Your task to perform on an android device: Set the phone to "Do not disturb". Image 0: 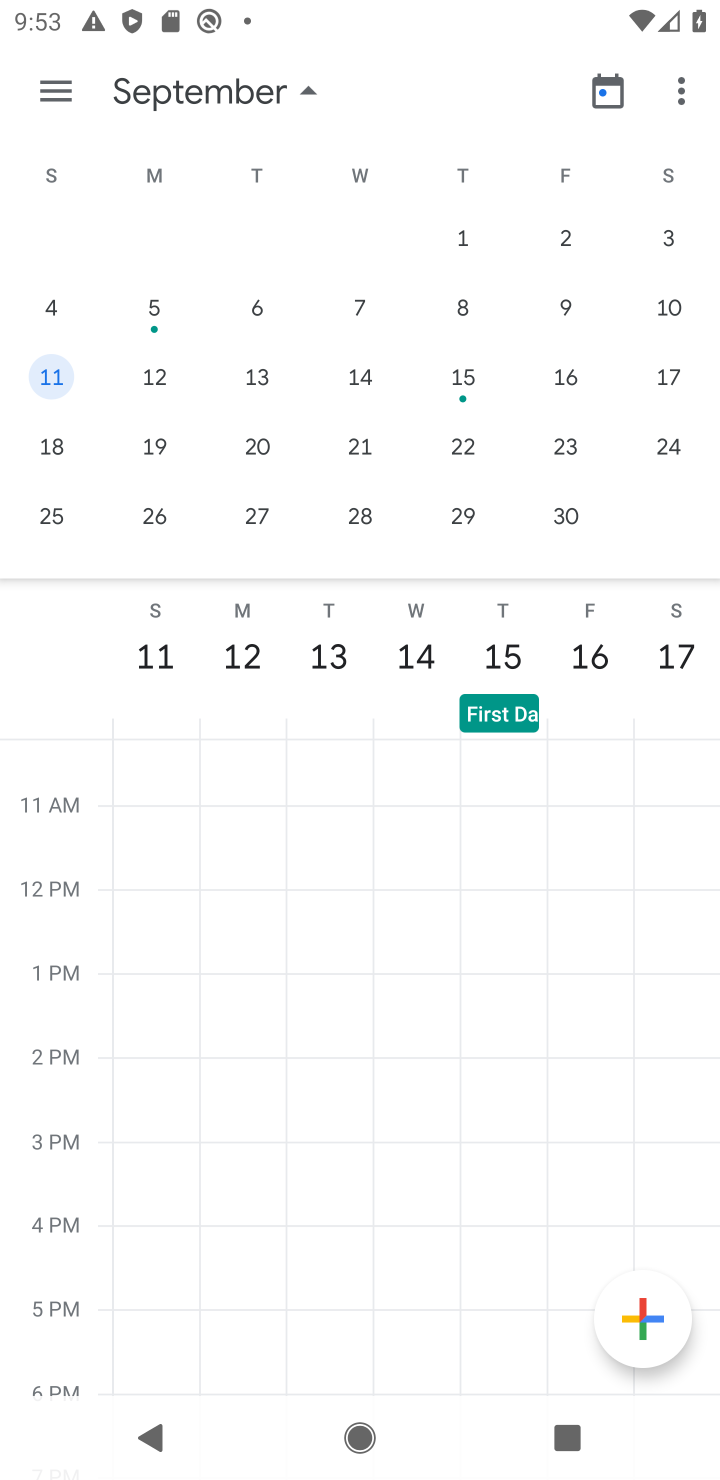
Step 0: press home button
Your task to perform on an android device: Set the phone to "Do not disturb". Image 1: 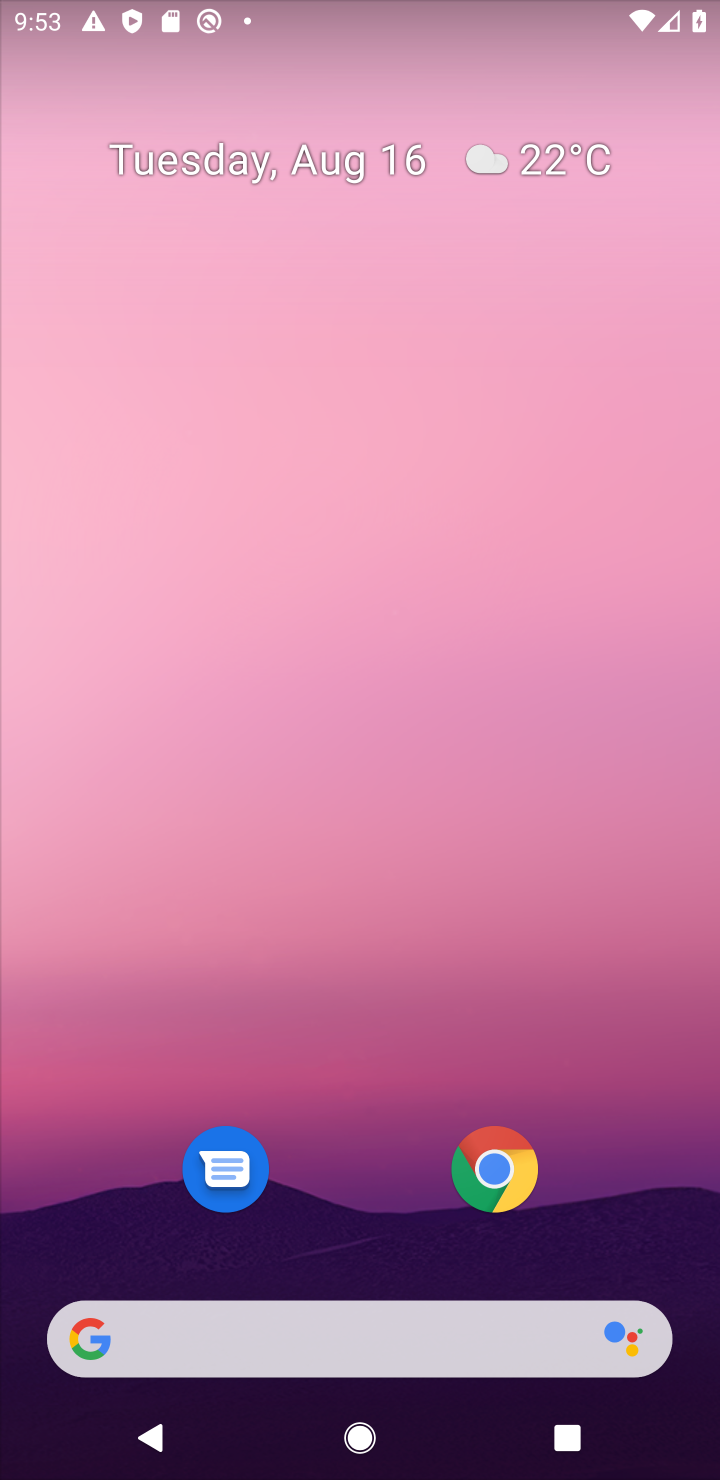
Step 1: drag from (317, 944) to (93, 30)
Your task to perform on an android device: Set the phone to "Do not disturb". Image 2: 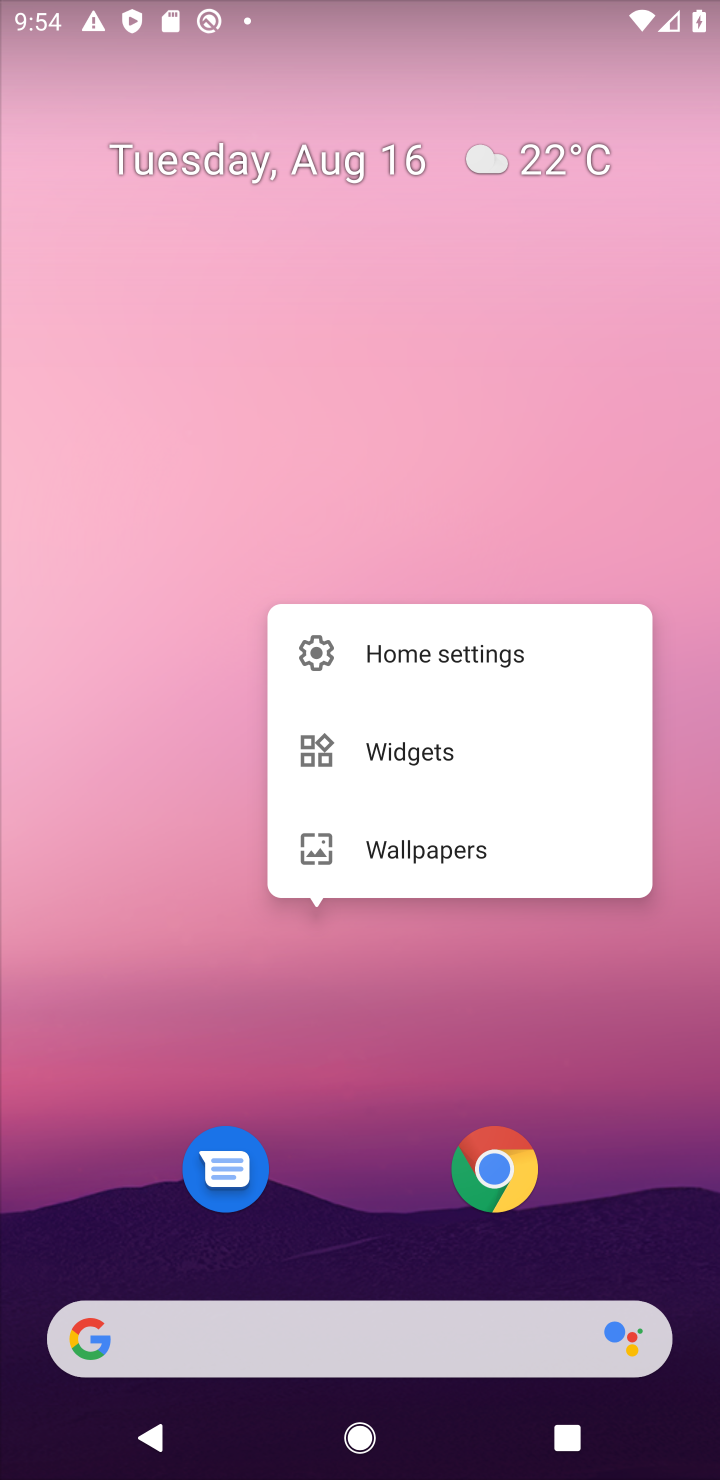
Step 2: drag from (327, 1149) to (297, 15)
Your task to perform on an android device: Set the phone to "Do not disturb". Image 3: 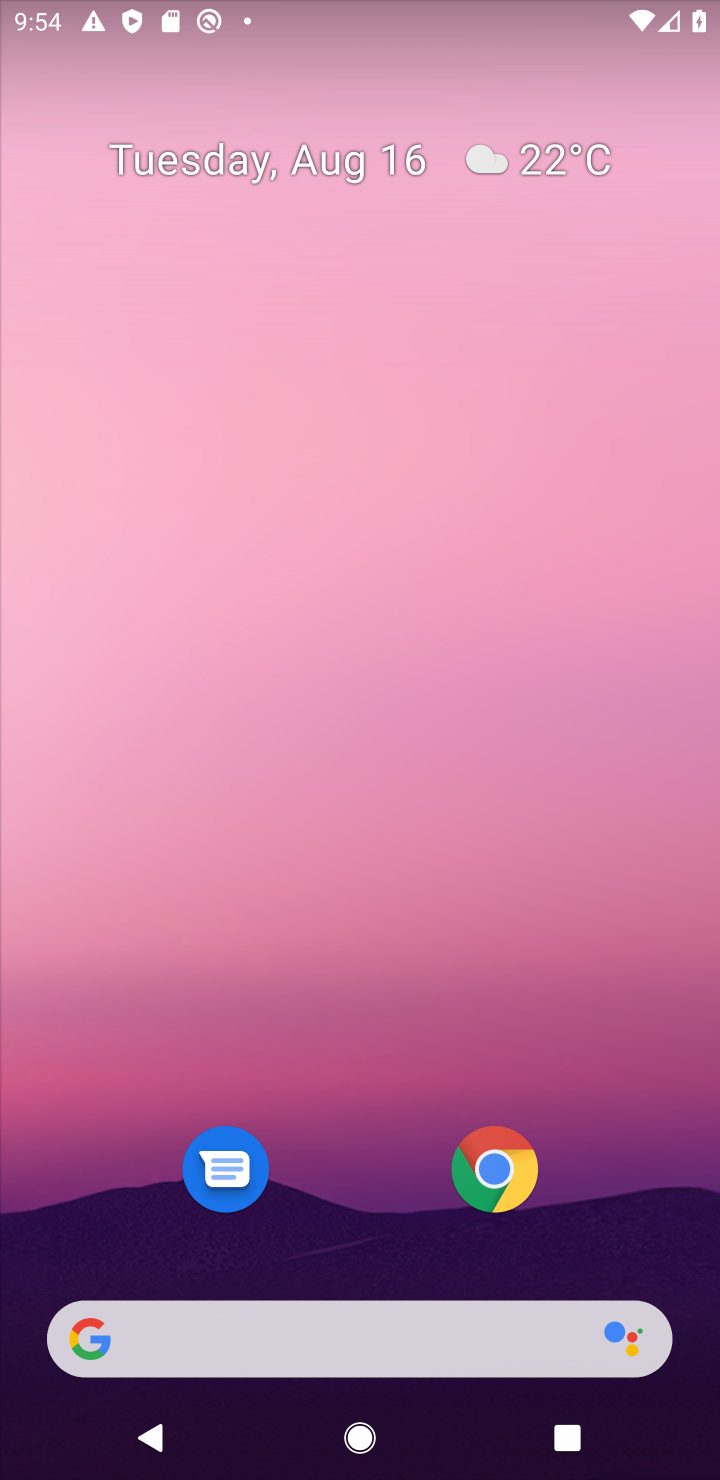
Step 3: drag from (313, 237) to (214, 59)
Your task to perform on an android device: Set the phone to "Do not disturb". Image 4: 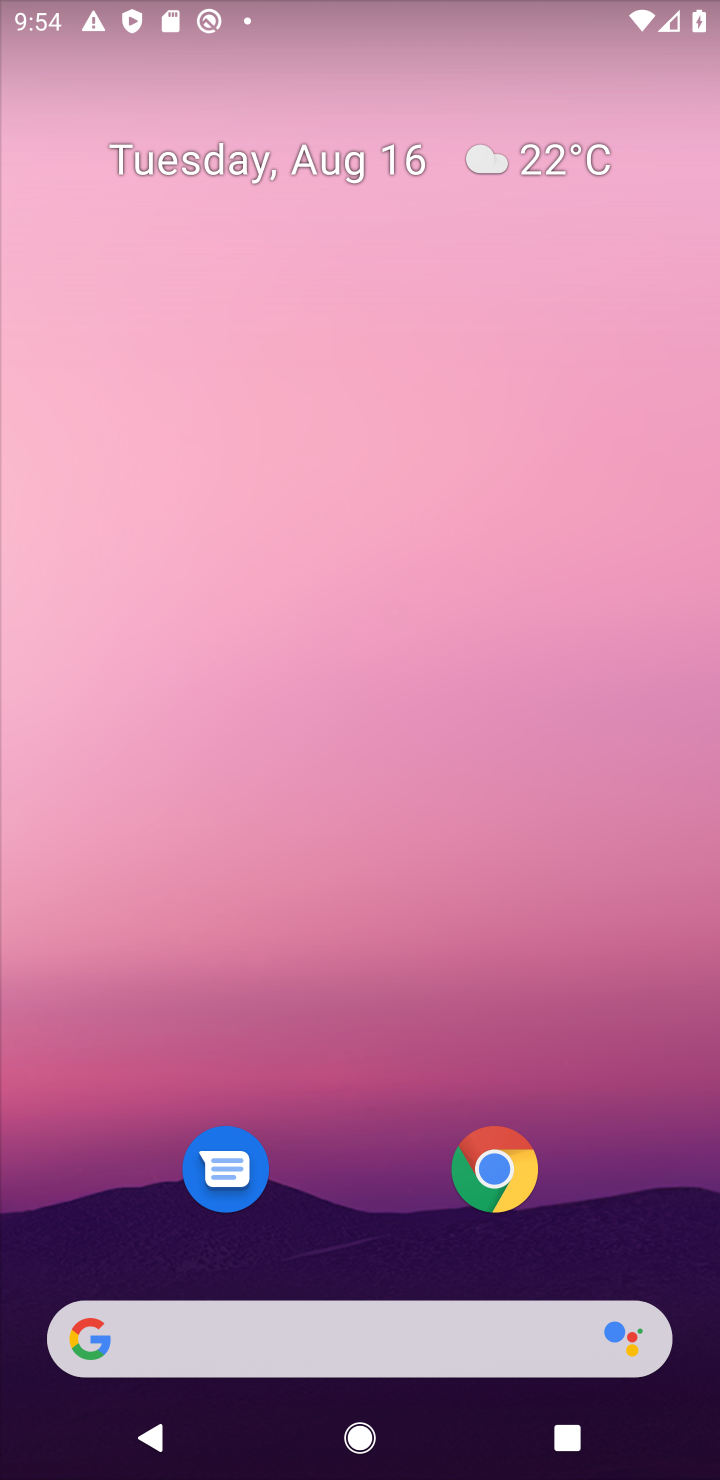
Step 4: drag from (350, 944) to (355, 129)
Your task to perform on an android device: Set the phone to "Do not disturb". Image 5: 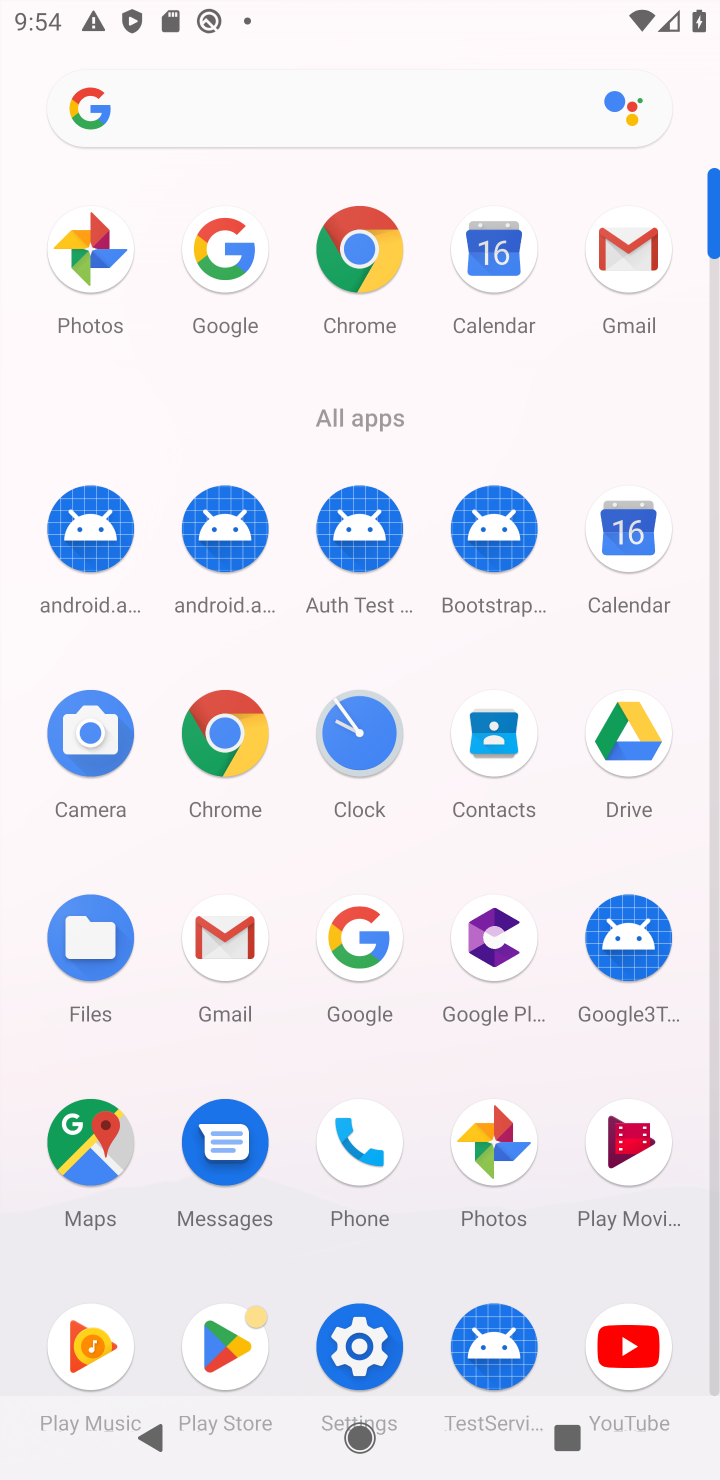
Step 5: click (353, 1353)
Your task to perform on an android device: Set the phone to "Do not disturb". Image 6: 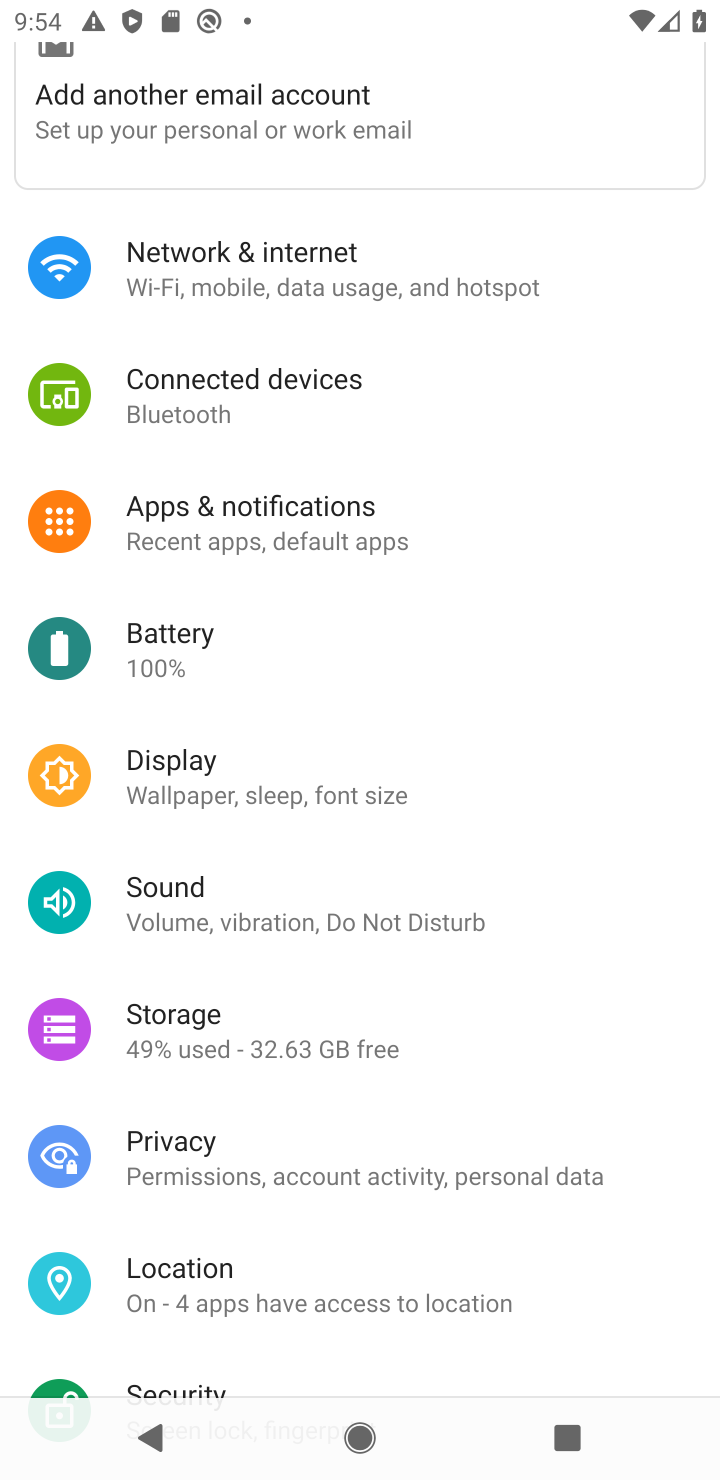
Step 6: click (172, 878)
Your task to perform on an android device: Set the phone to "Do not disturb". Image 7: 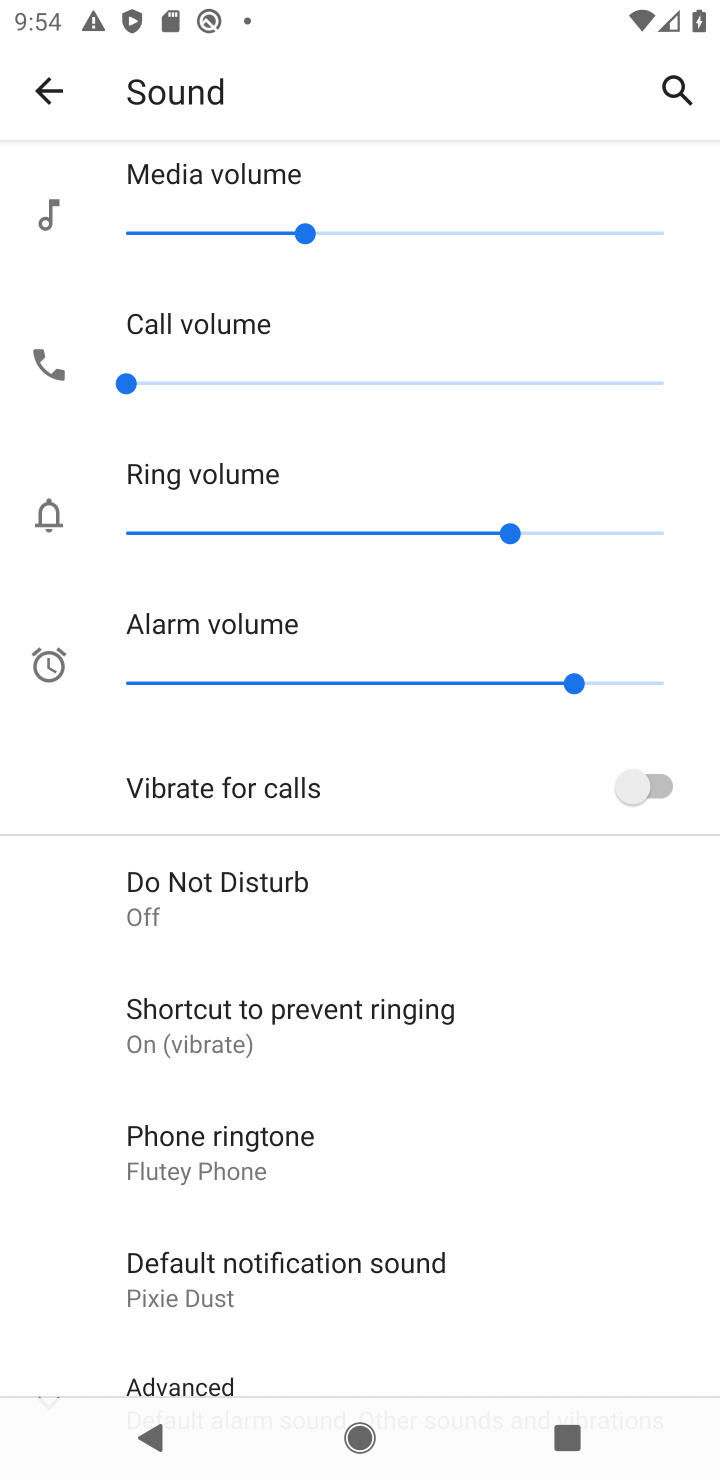
Step 7: click (172, 878)
Your task to perform on an android device: Set the phone to "Do not disturb". Image 8: 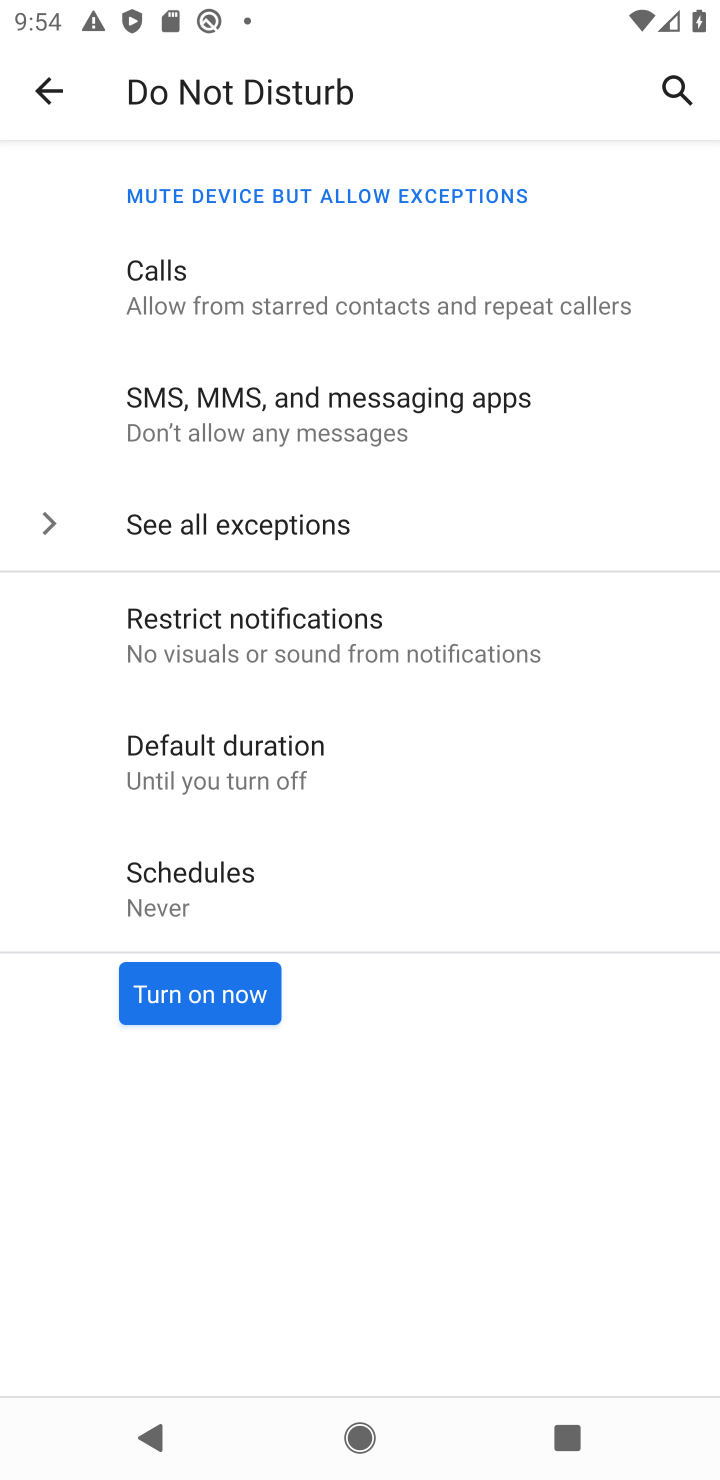
Step 8: click (176, 975)
Your task to perform on an android device: Set the phone to "Do not disturb". Image 9: 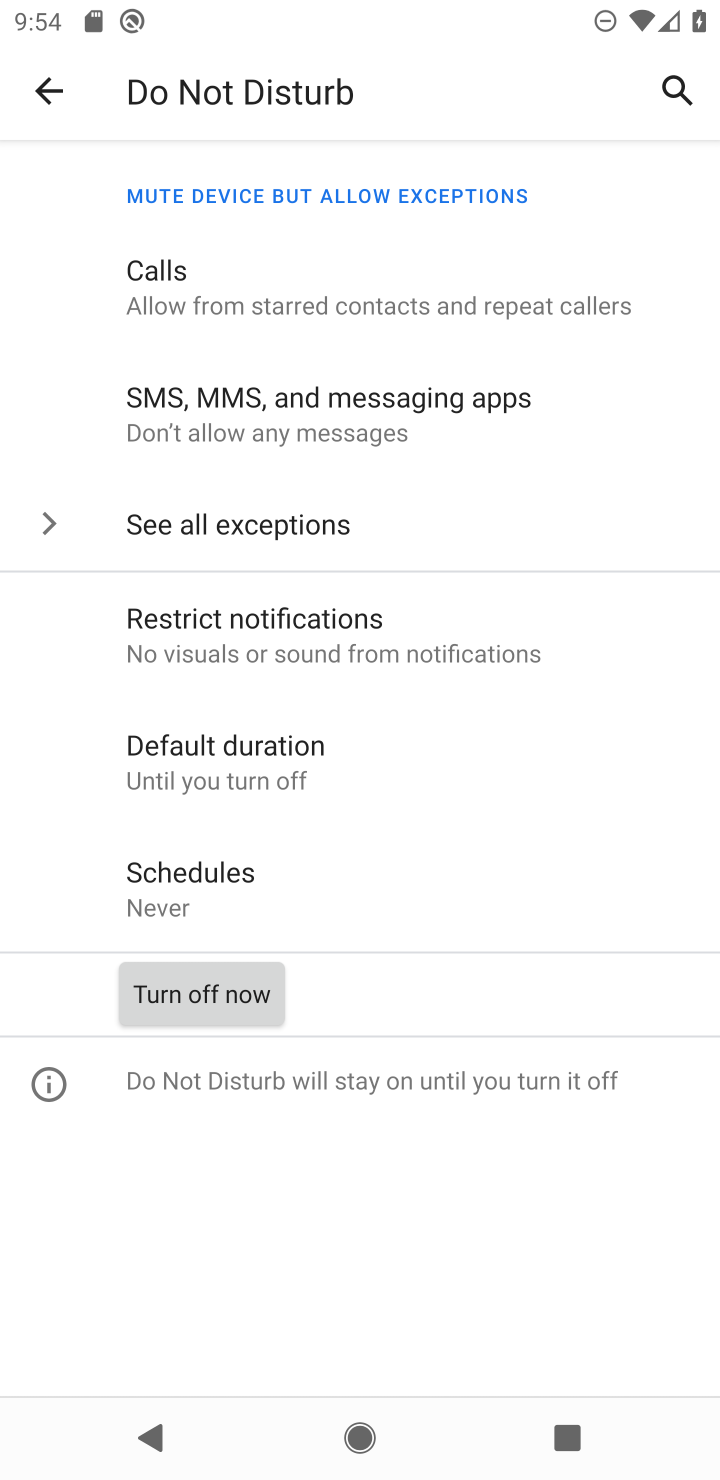
Step 9: task complete